Your task to perform on an android device: check the backup settings in the google photos Image 0: 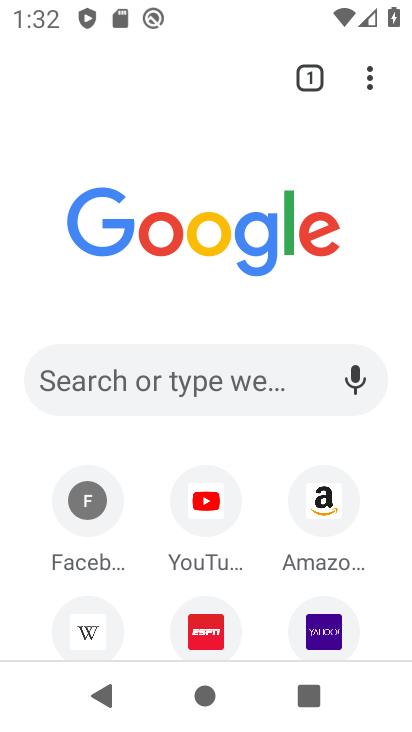
Step 0: press home button
Your task to perform on an android device: check the backup settings in the google photos Image 1: 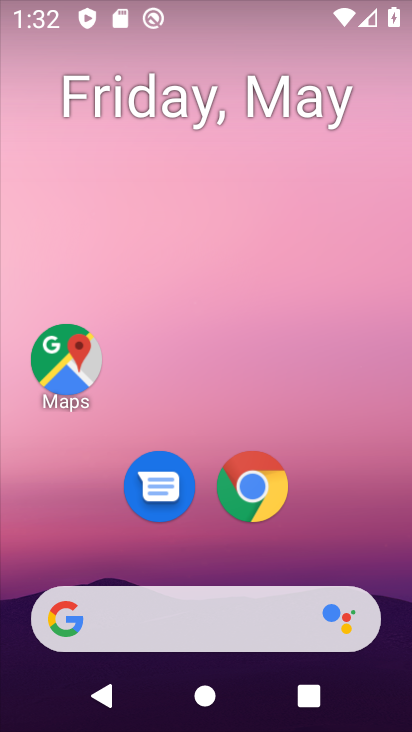
Step 1: drag from (402, 629) to (272, 52)
Your task to perform on an android device: check the backup settings in the google photos Image 2: 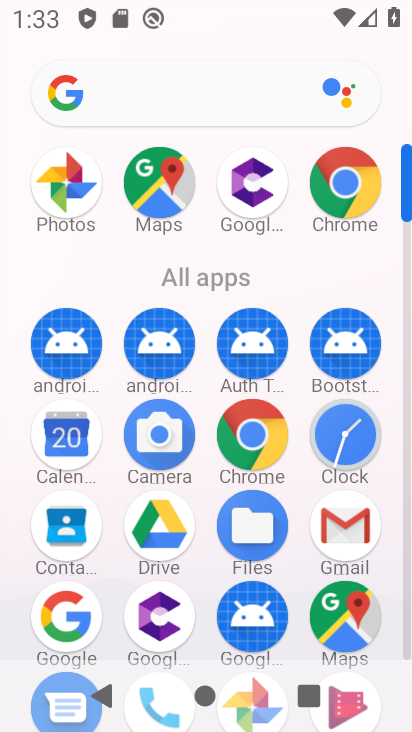
Step 2: drag from (243, 614) to (286, 126)
Your task to perform on an android device: check the backup settings in the google photos Image 3: 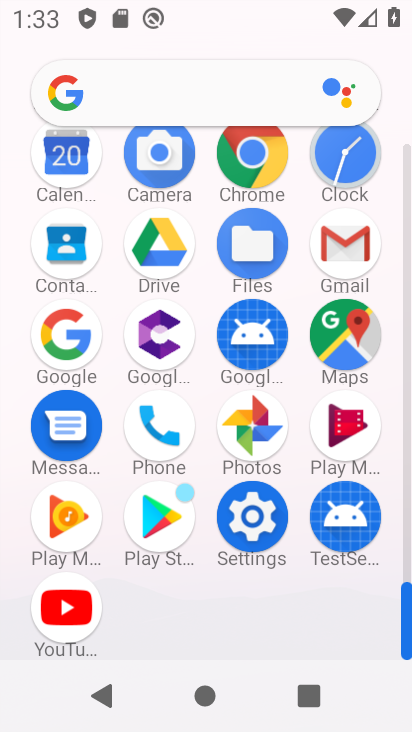
Step 3: click (257, 419)
Your task to perform on an android device: check the backup settings in the google photos Image 4: 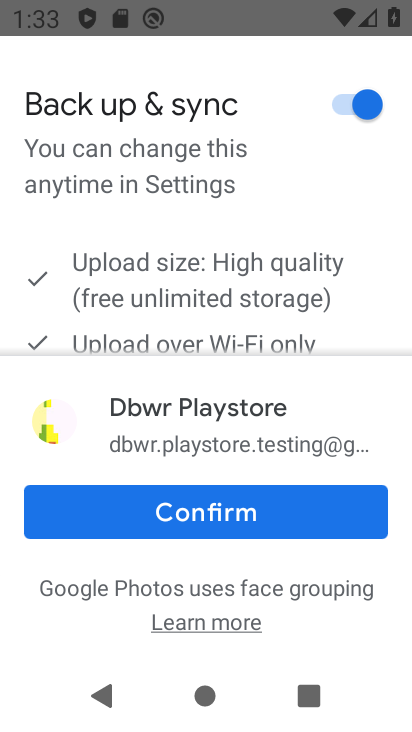
Step 4: click (177, 513)
Your task to perform on an android device: check the backup settings in the google photos Image 5: 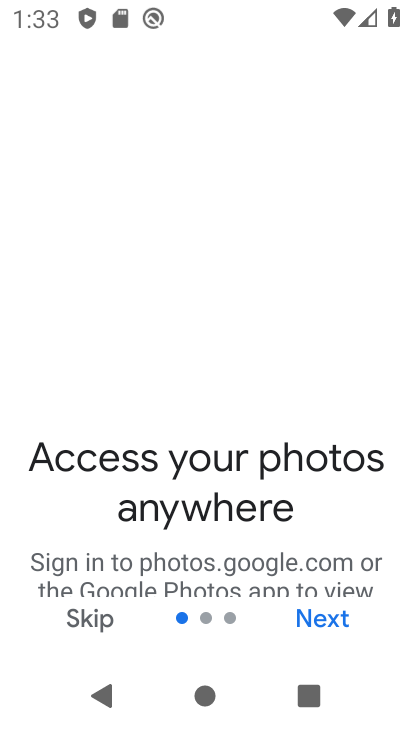
Step 5: click (309, 618)
Your task to perform on an android device: check the backup settings in the google photos Image 6: 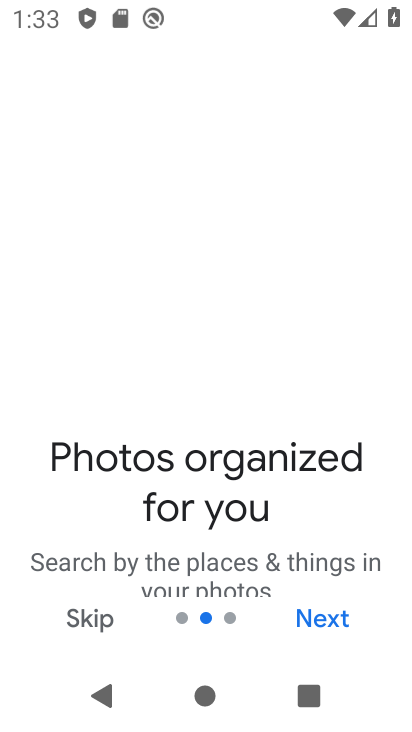
Step 6: click (309, 618)
Your task to perform on an android device: check the backup settings in the google photos Image 7: 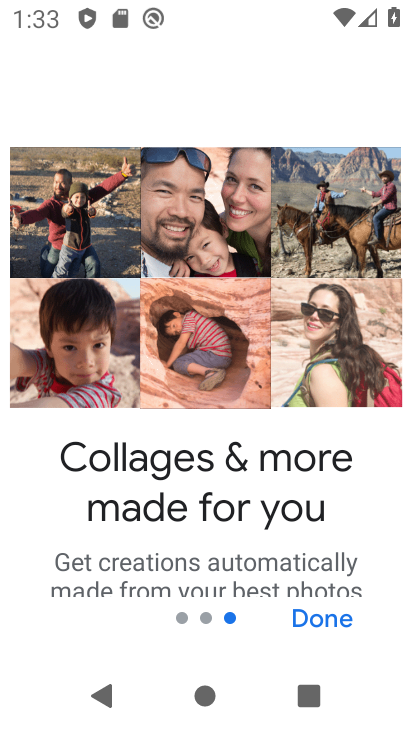
Step 7: click (309, 618)
Your task to perform on an android device: check the backup settings in the google photos Image 8: 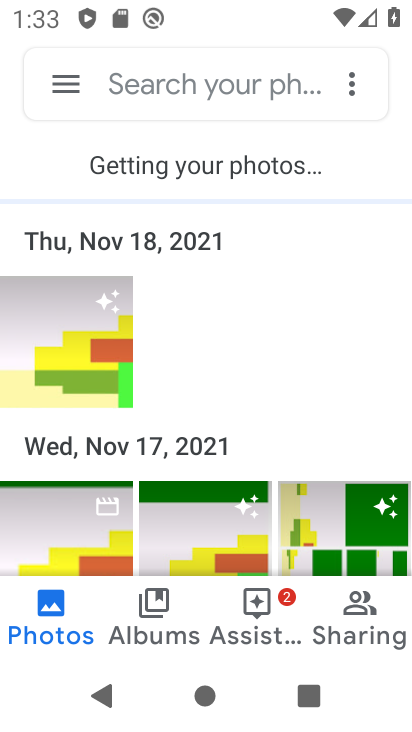
Step 8: click (39, 72)
Your task to perform on an android device: check the backup settings in the google photos Image 9: 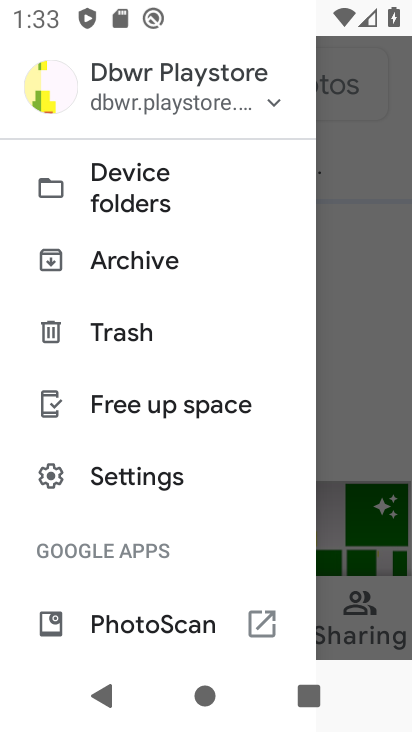
Step 9: click (145, 469)
Your task to perform on an android device: check the backup settings in the google photos Image 10: 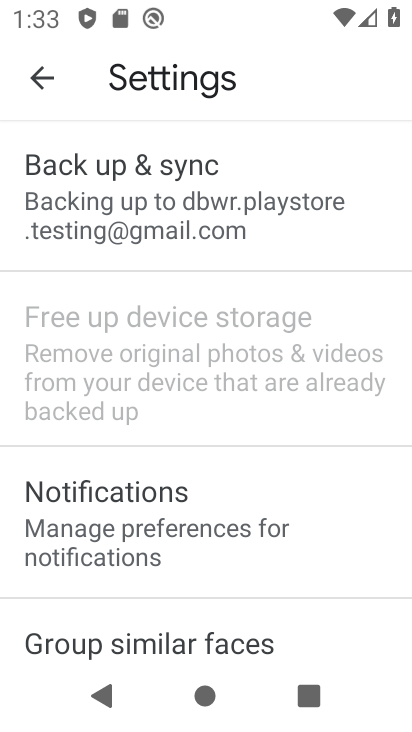
Step 10: click (169, 233)
Your task to perform on an android device: check the backup settings in the google photos Image 11: 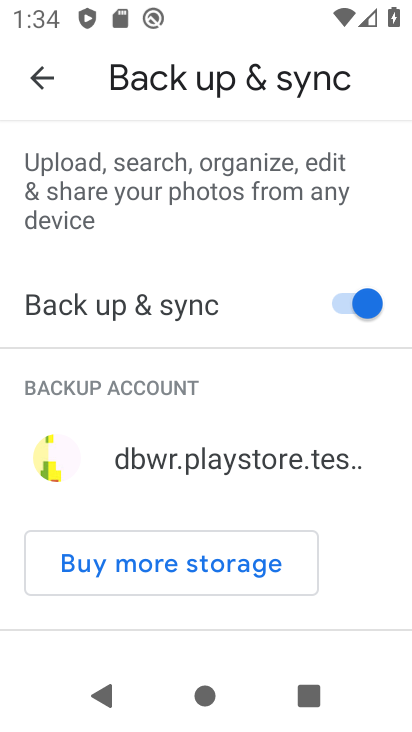
Step 11: task complete